Your task to perform on an android device: Open notification settings Image 0: 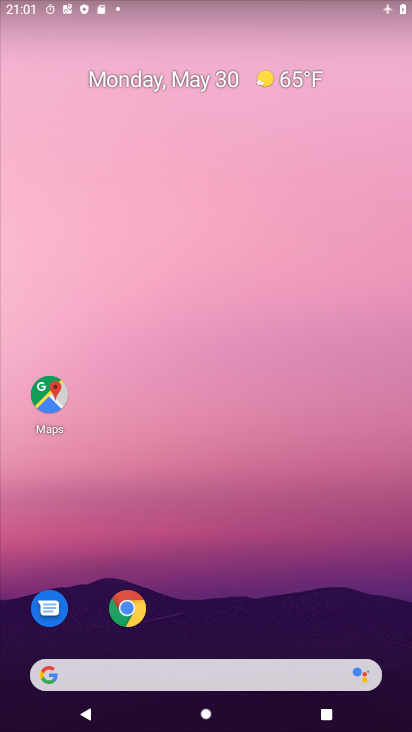
Step 0: drag from (214, 618) to (193, 176)
Your task to perform on an android device: Open notification settings Image 1: 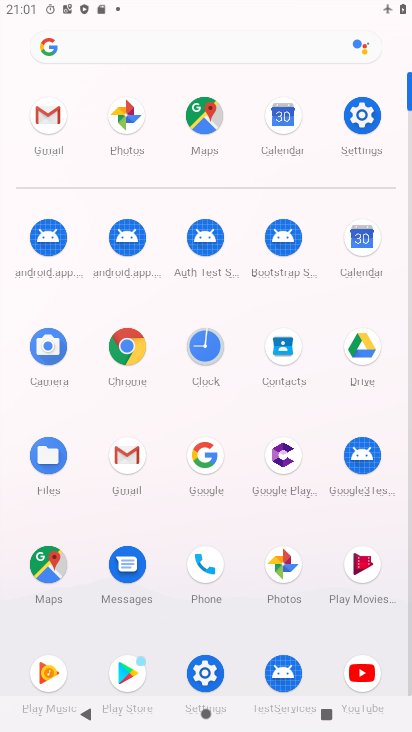
Step 1: click (353, 125)
Your task to perform on an android device: Open notification settings Image 2: 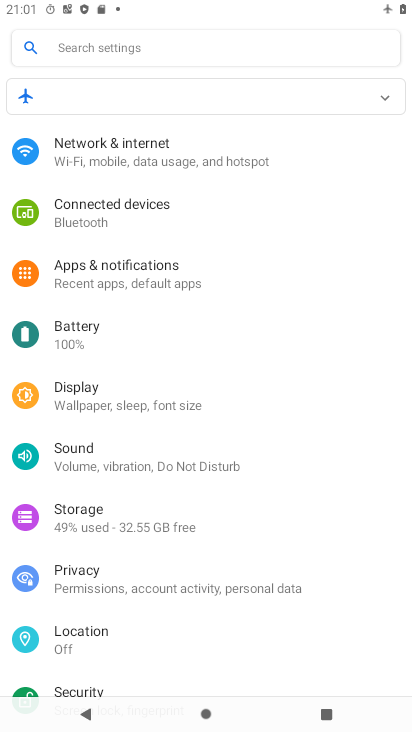
Step 2: click (123, 261)
Your task to perform on an android device: Open notification settings Image 3: 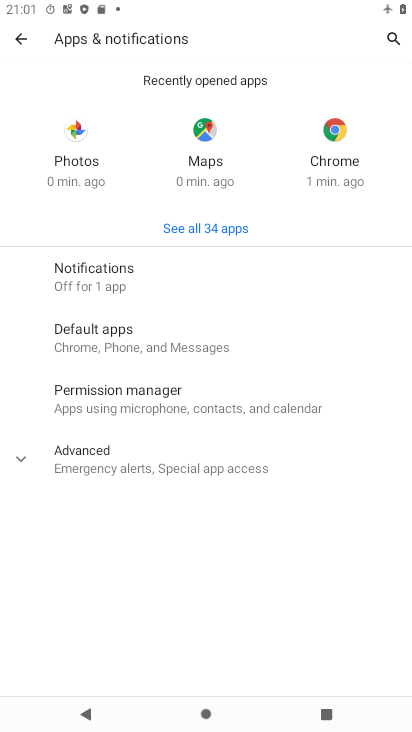
Step 3: click (138, 274)
Your task to perform on an android device: Open notification settings Image 4: 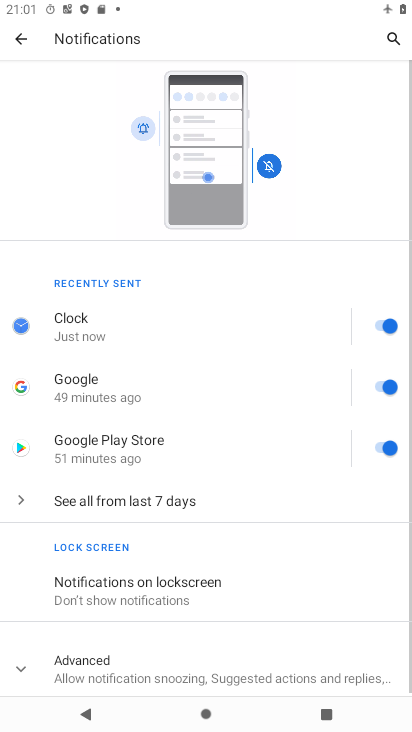
Step 4: task complete